Your task to perform on an android device: When is my next appointment? Image 0: 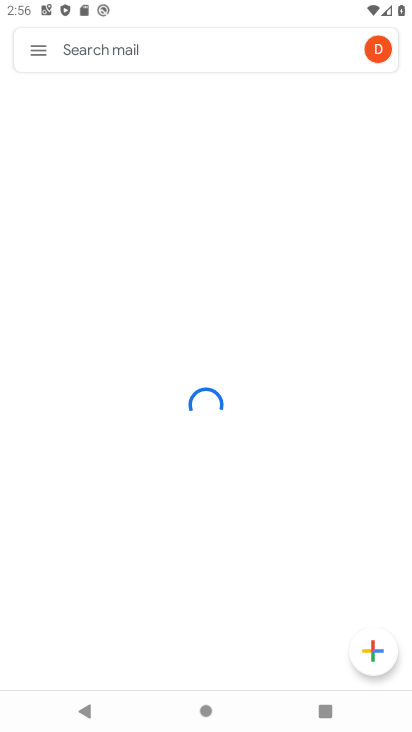
Step 0: press home button
Your task to perform on an android device: When is my next appointment? Image 1: 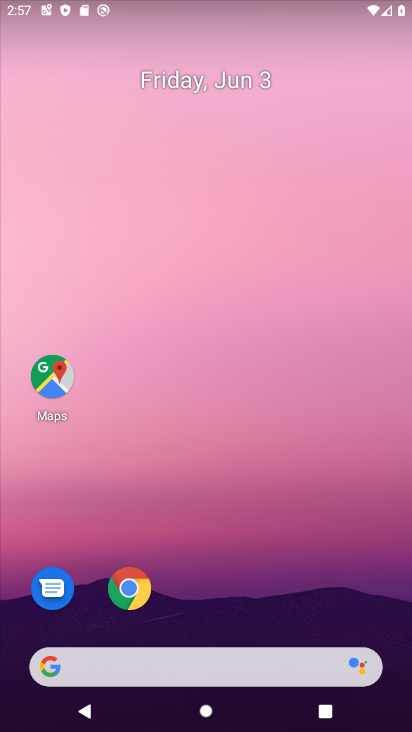
Step 1: drag from (101, 525) to (333, 93)
Your task to perform on an android device: When is my next appointment? Image 2: 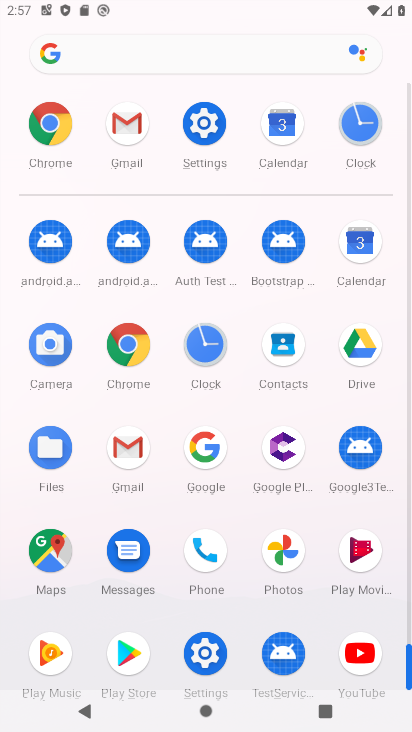
Step 2: click (353, 258)
Your task to perform on an android device: When is my next appointment? Image 3: 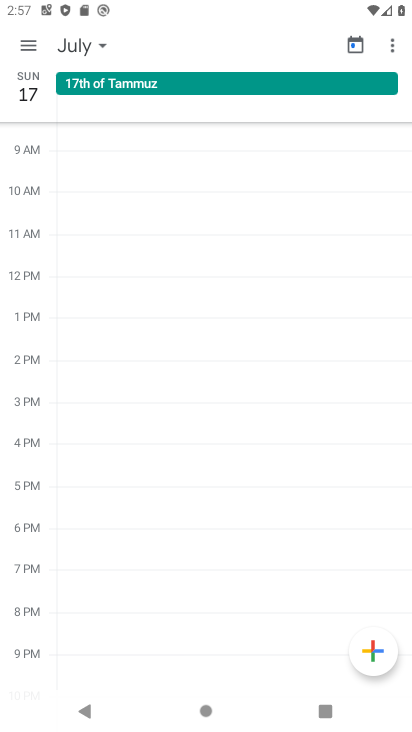
Step 3: click (57, 47)
Your task to perform on an android device: When is my next appointment? Image 4: 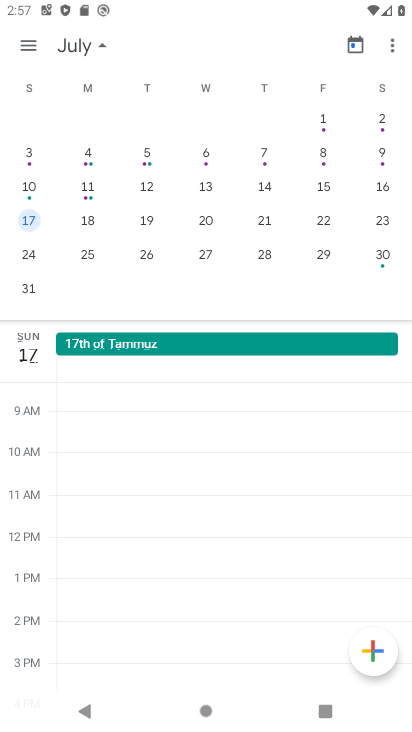
Step 4: click (20, 37)
Your task to perform on an android device: When is my next appointment? Image 5: 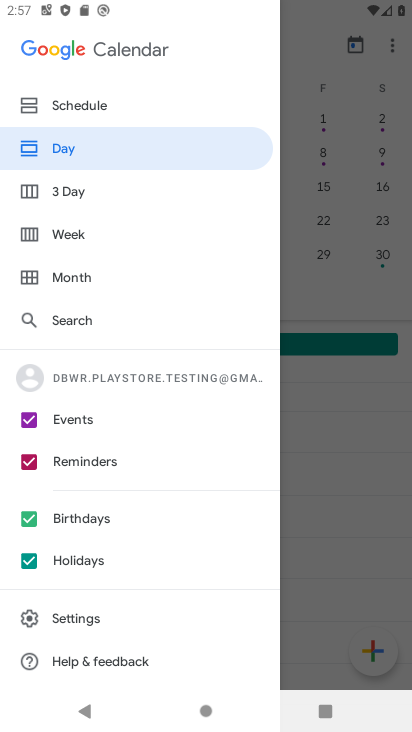
Step 5: task complete